Your task to perform on an android device: stop showing notifications on the lock screen Image 0: 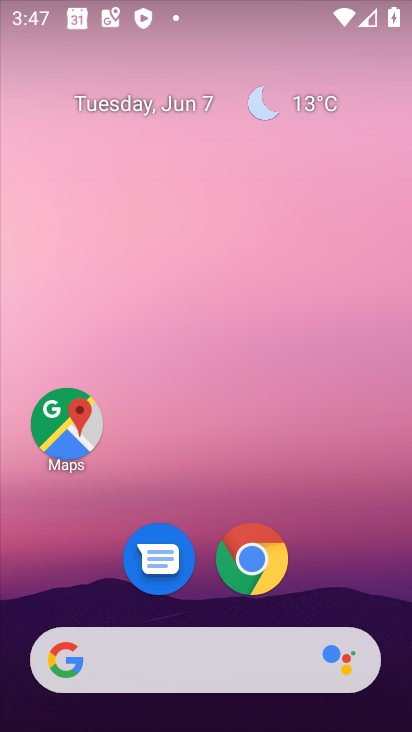
Step 0: drag from (350, 574) to (273, 131)
Your task to perform on an android device: stop showing notifications on the lock screen Image 1: 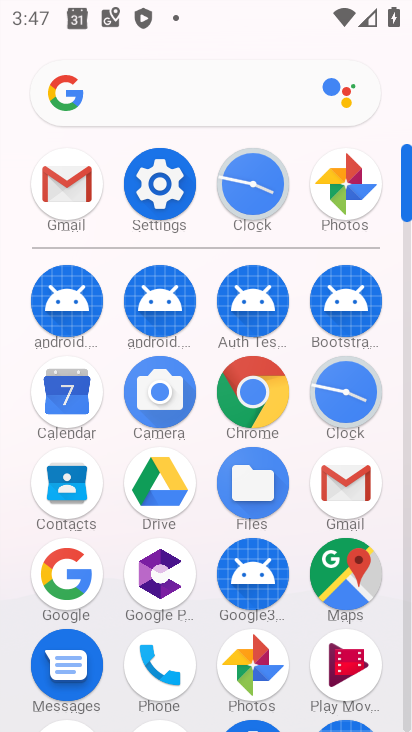
Step 1: click (159, 184)
Your task to perform on an android device: stop showing notifications on the lock screen Image 2: 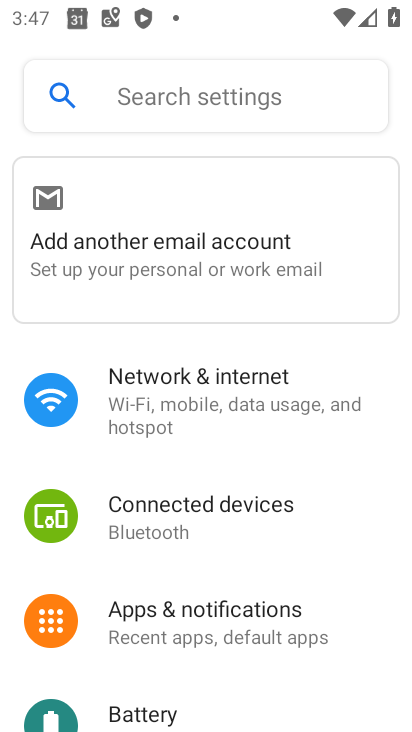
Step 2: click (175, 609)
Your task to perform on an android device: stop showing notifications on the lock screen Image 3: 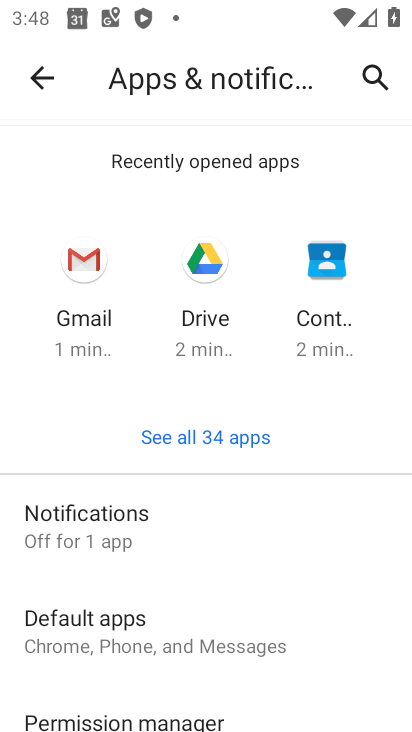
Step 3: click (108, 517)
Your task to perform on an android device: stop showing notifications on the lock screen Image 4: 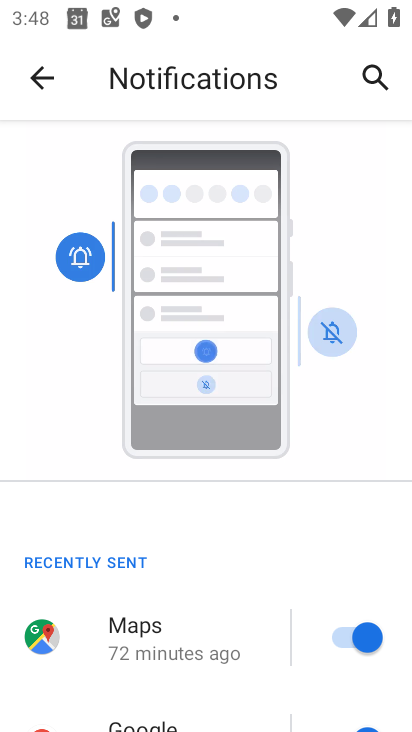
Step 4: task complete